Your task to perform on an android device: What's the weather going to be tomorrow? Image 0: 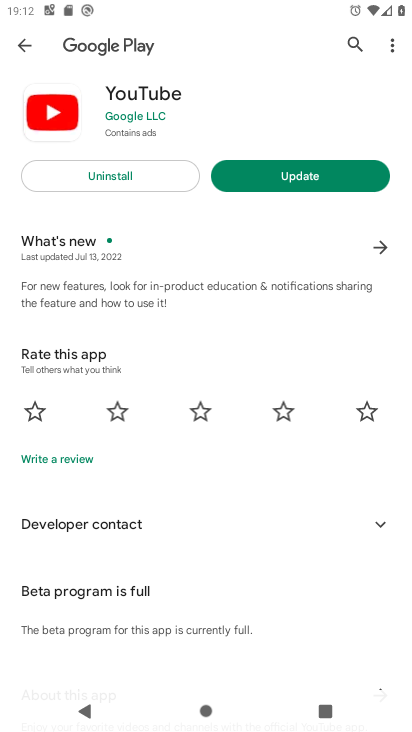
Step 0: press home button
Your task to perform on an android device: What's the weather going to be tomorrow? Image 1: 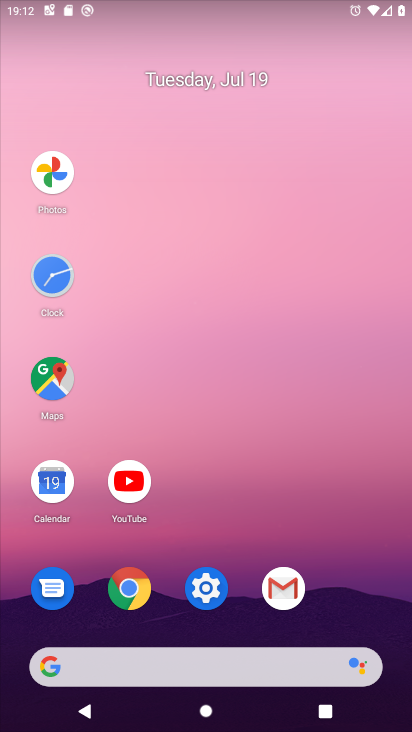
Step 1: click (144, 657)
Your task to perform on an android device: What's the weather going to be tomorrow? Image 2: 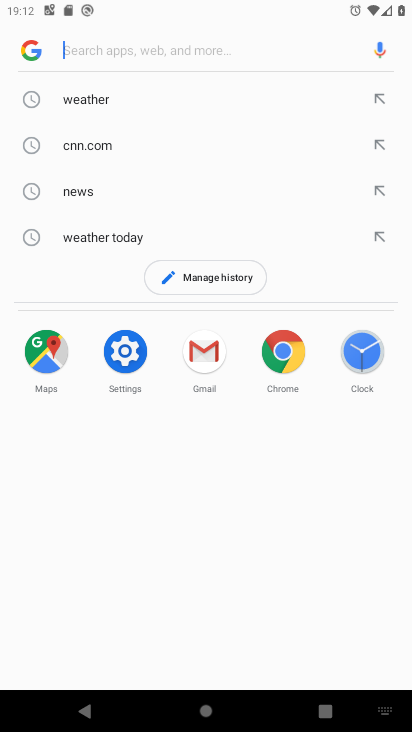
Step 2: click (84, 92)
Your task to perform on an android device: What's the weather going to be tomorrow? Image 3: 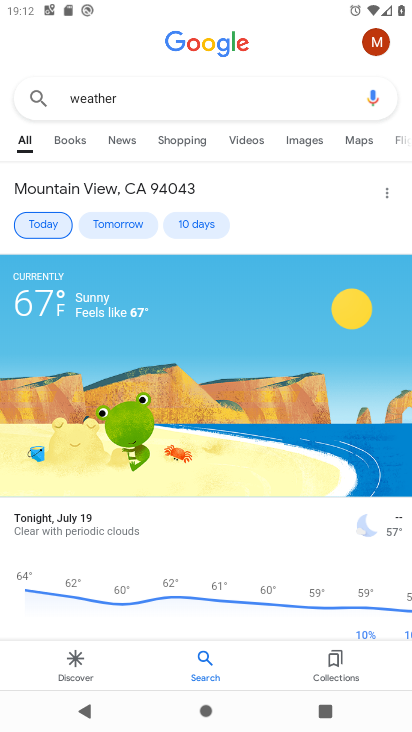
Step 3: click (124, 227)
Your task to perform on an android device: What's the weather going to be tomorrow? Image 4: 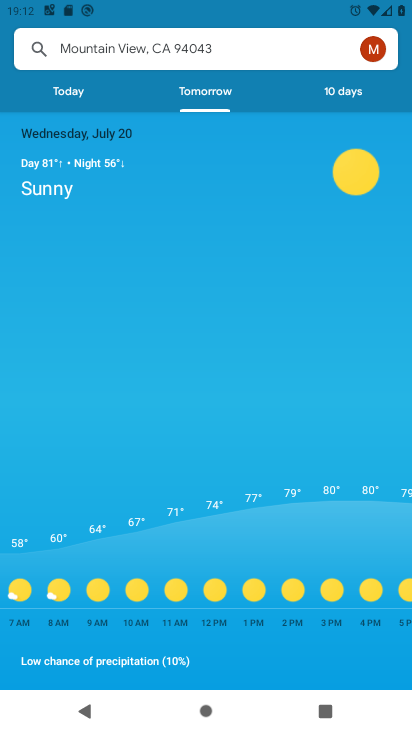
Step 4: task complete